Your task to perform on an android device: Open Yahoo.com Image 0: 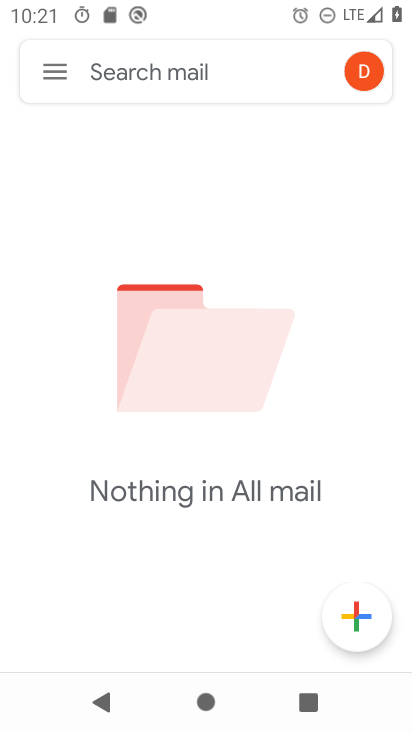
Step 0: press home button
Your task to perform on an android device: Open Yahoo.com Image 1: 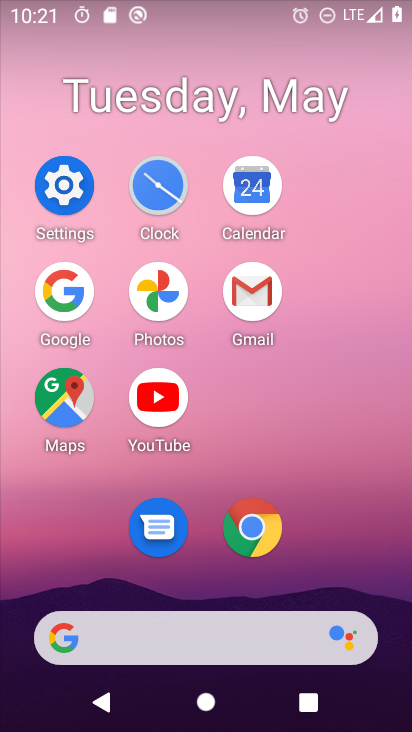
Step 1: click (258, 543)
Your task to perform on an android device: Open Yahoo.com Image 2: 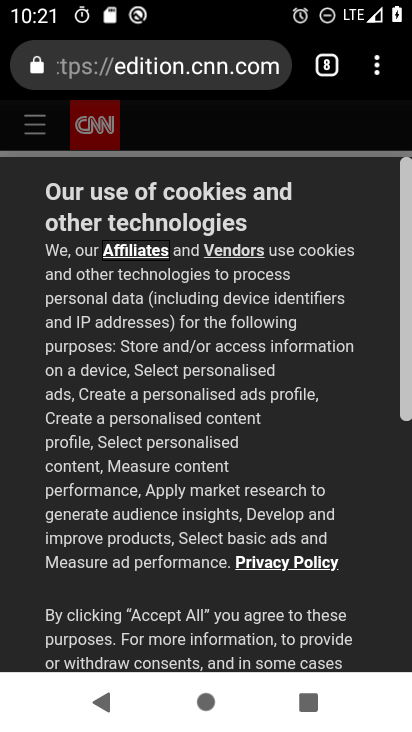
Step 2: click (324, 66)
Your task to perform on an android device: Open Yahoo.com Image 3: 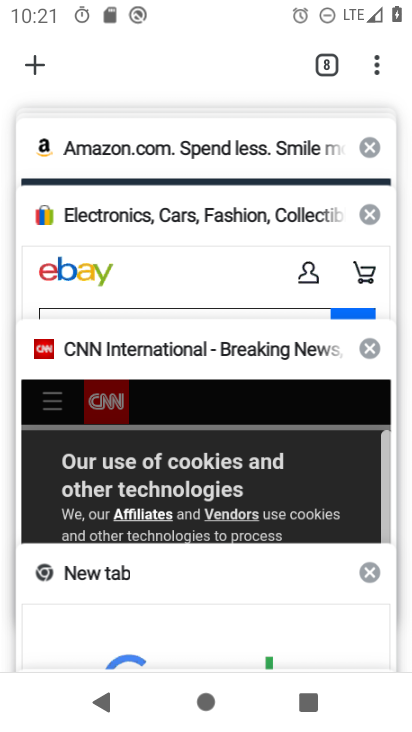
Step 3: drag from (212, 252) to (210, 576)
Your task to perform on an android device: Open Yahoo.com Image 4: 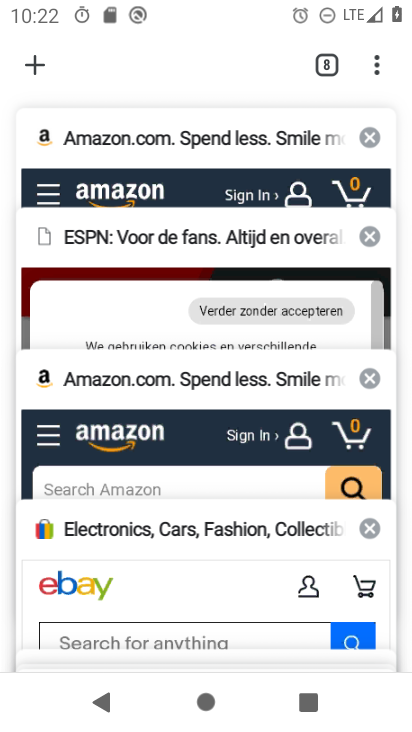
Step 4: drag from (213, 274) to (233, 615)
Your task to perform on an android device: Open Yahoo.com Image 5: 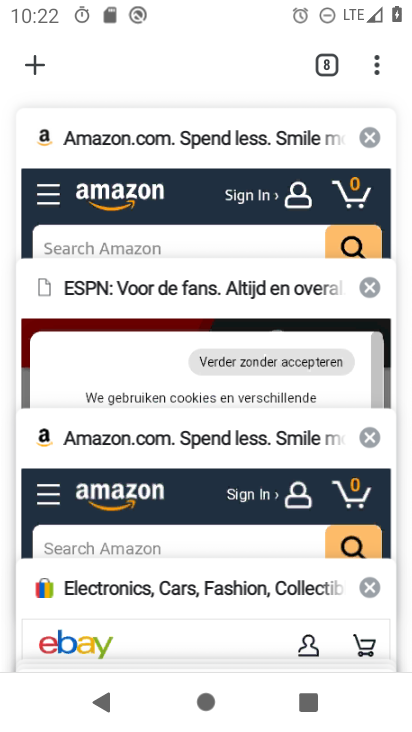
Step 5: drag from (225, 162) to (227, 554)
Your task to perform on an android device: Open Yahoo.com Image 6: 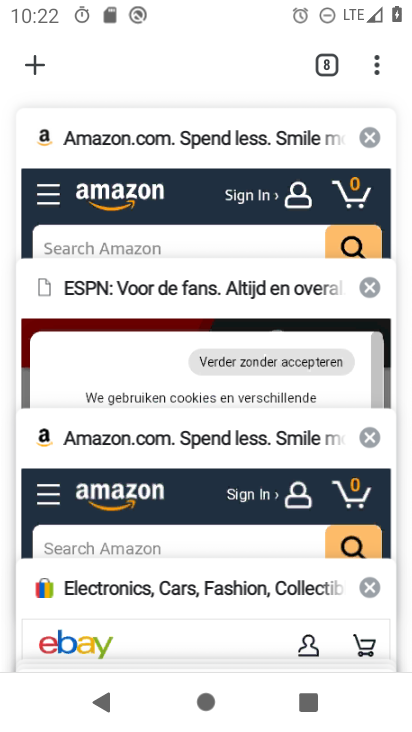
Step 6: drag from (177, 538) to (206, 135)
Your task to perform on an android device: Open Yahoo.com Image 7: 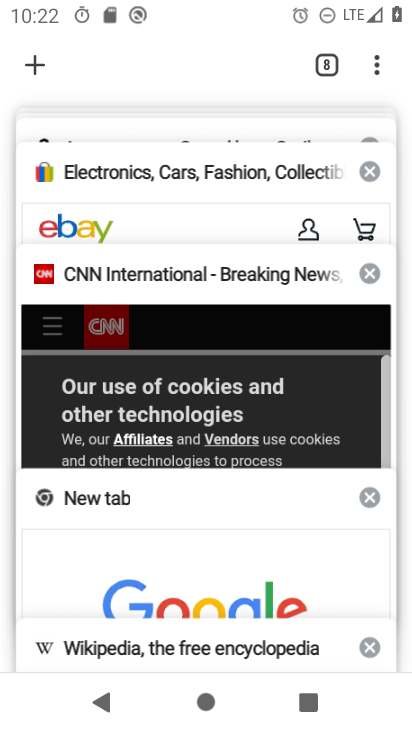
Step 7: drag from (191, 522) to (180, 92)
Your task to perform on an android device: Open Yahoo.com Image 8: 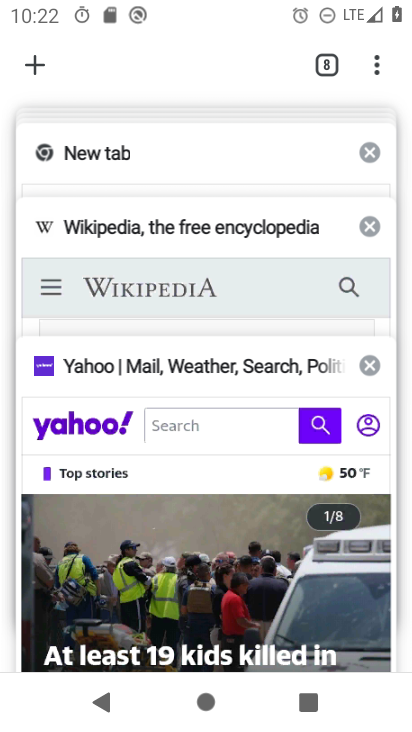
Step 8: click (115, 405)
Your task to perform on an android device: Open Yahoo.com Image 9: 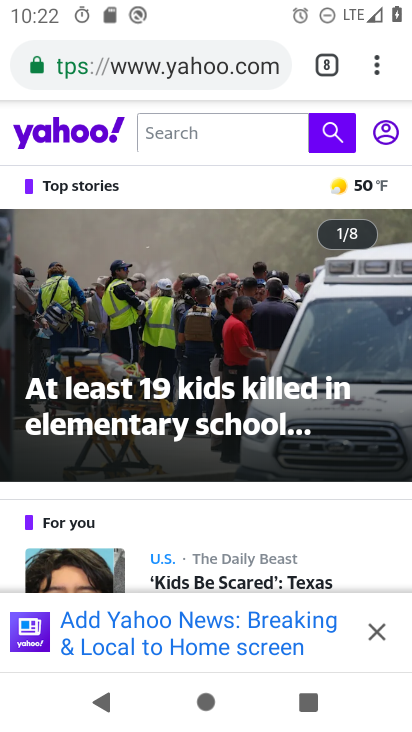
Step 9: task complete